Your task to perform on an android device: all mails in gmail Image 0: 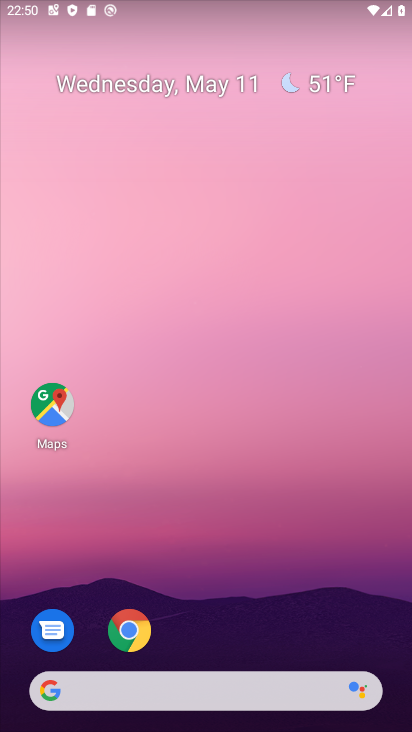
Step 0: drag from (203, 730) to (240, 101)
Your task to perform on an android device: all mails in gmail Image 1: 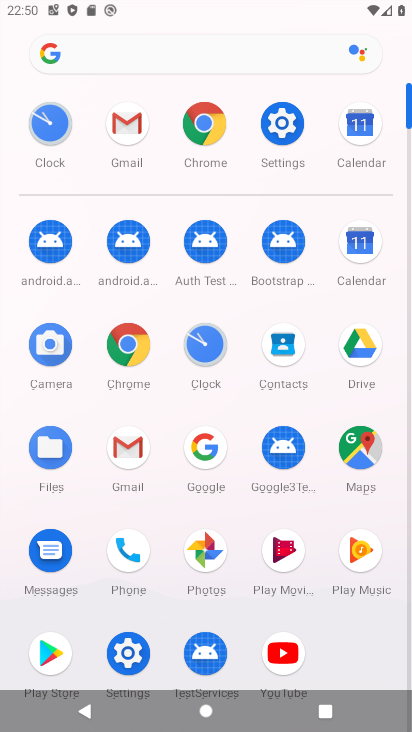
Step 1: click (133, 451)
Your task to perform on an android device: all mails in gmail Image 2: 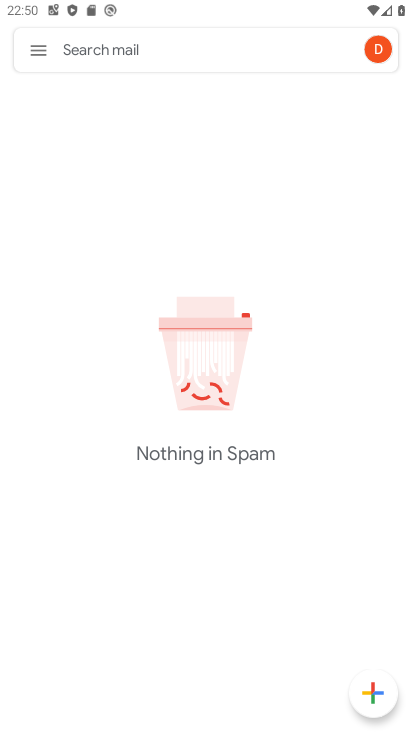
Step 2: click (34, 47)
Your task to perform on an android device: all mails in gmail Image 3: 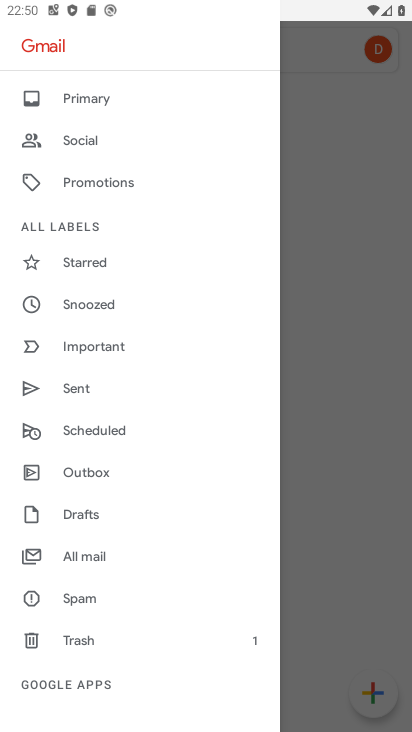
Step 3: click (77, 556)
Your task to perform on an android device: all mails in gmail Image 4: 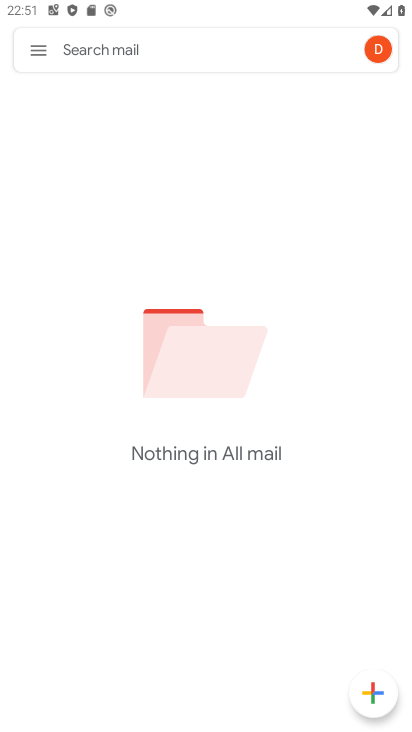
Step 4: task complete